Your task to perform on an android device: Play the last video I watched on Youtube Image 0: 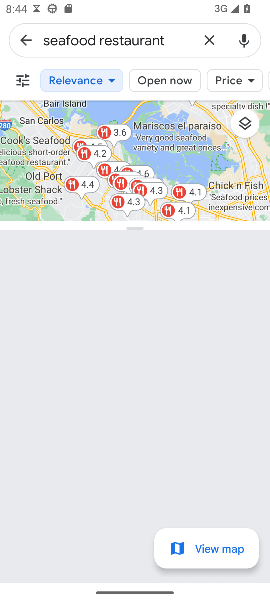
Step 0: press home button
Your task to perform on an android device: Play the last video I watched on Youtube Image 1: 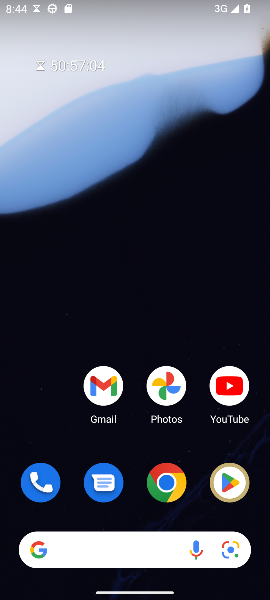
Step 1: click (237, 390)
Your task to perform on an android device: Play the last video I watched on Youtube Image 2: 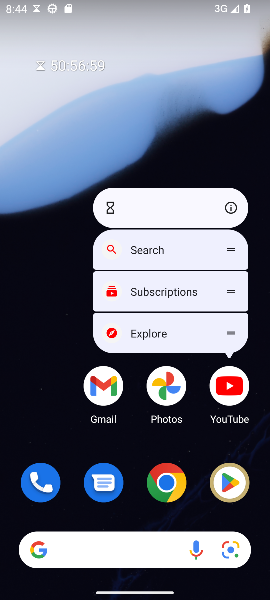
Step 2: click (237, 388)
Your task to perform on an android device: Play the last video I watched on Youtube Image 3: 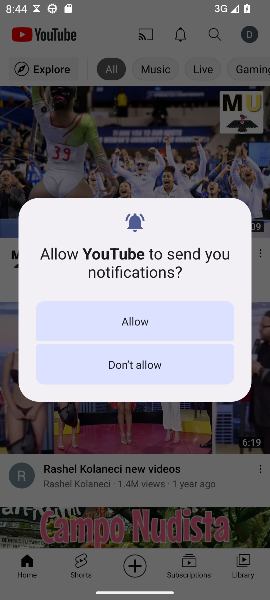
Step 3: click (135, 318)
Your task to perform on an android device: Play the last video I watched on Youtube Image 4: 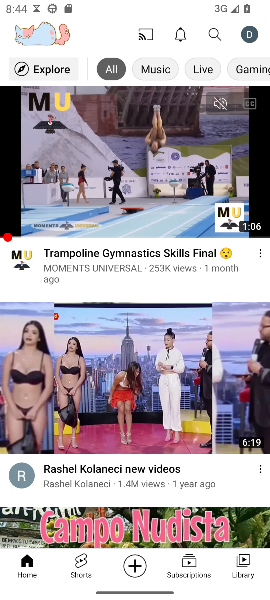
Step 4: click (242, 564)
Your task to perform on an android device: Play the last video I watched on Youtube Image 5: 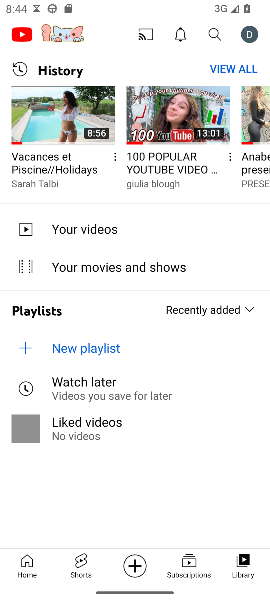
Step 5: click (50, 117)
Your task to perform on an android device: Play the last video I watched on Youtube Image 6: 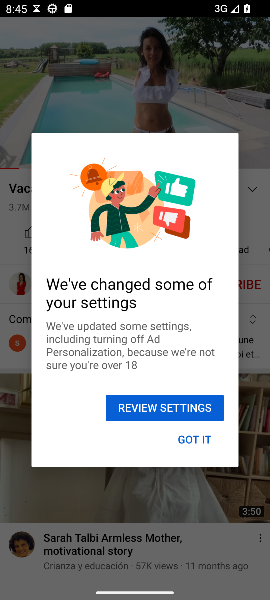
Step 6: click (192, 444)
Your task to perform on an android device: Play the last video I watched on Youtube Image 7: 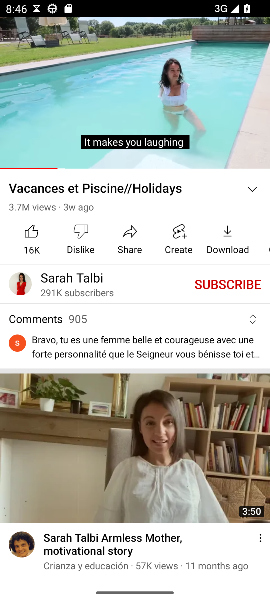
Step 7: task complete